Your task to perform on an android device: Add "dell xps" to the cart on costco.com, then select checkout. Image 0: 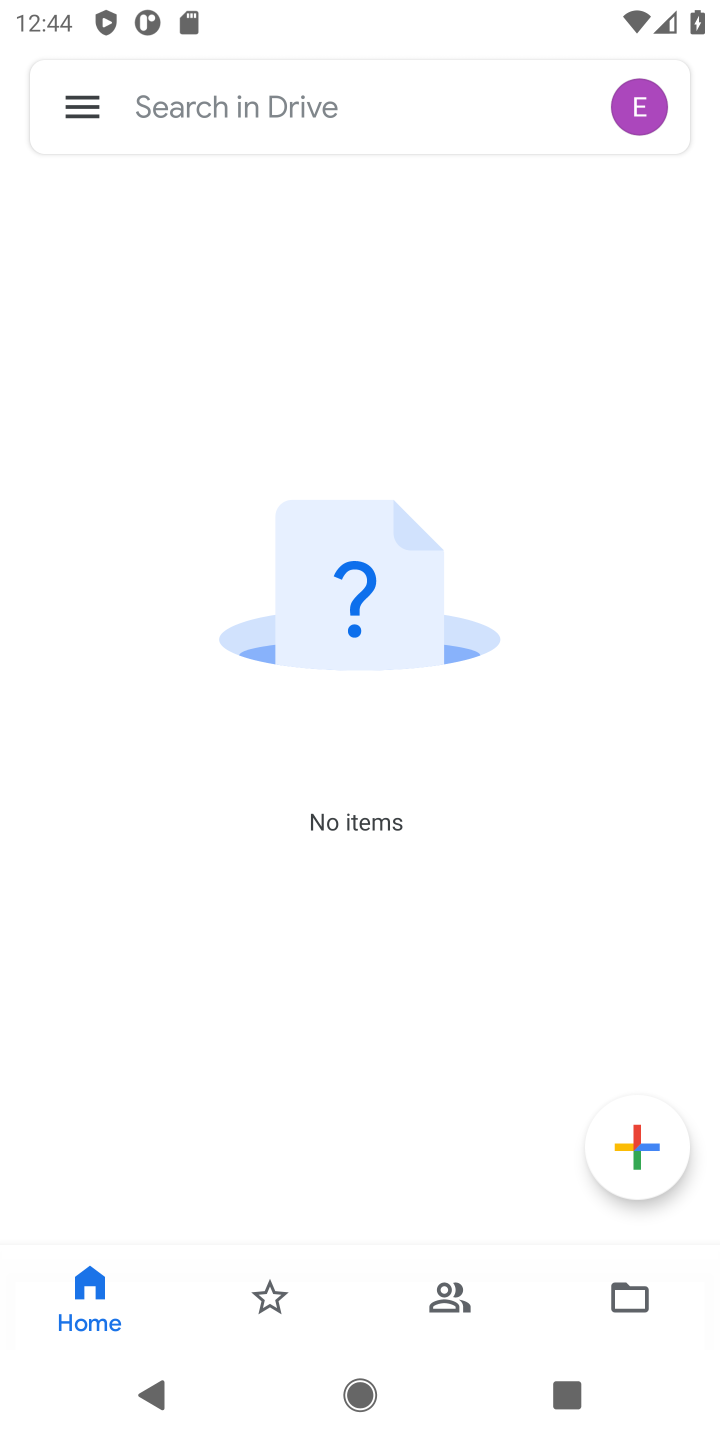
Step 0: press home button
Your task to perform on an android device: Add "dell xps" to the cart on costco.com, then select checkout. Image 1: 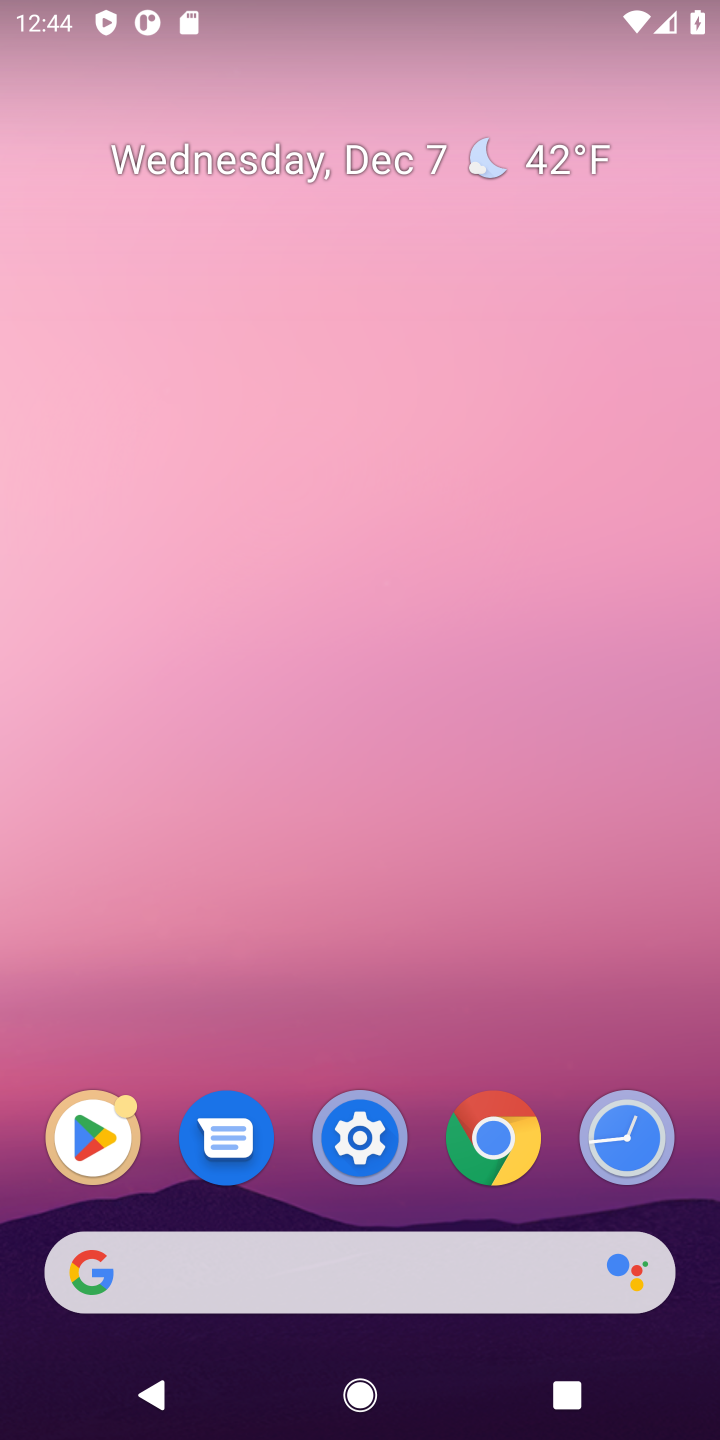
Step 1: click (213, 1263)
Your task to perform on an android device: Add "dell xps" to the cart on costco.com, then select checkout. Image 2: 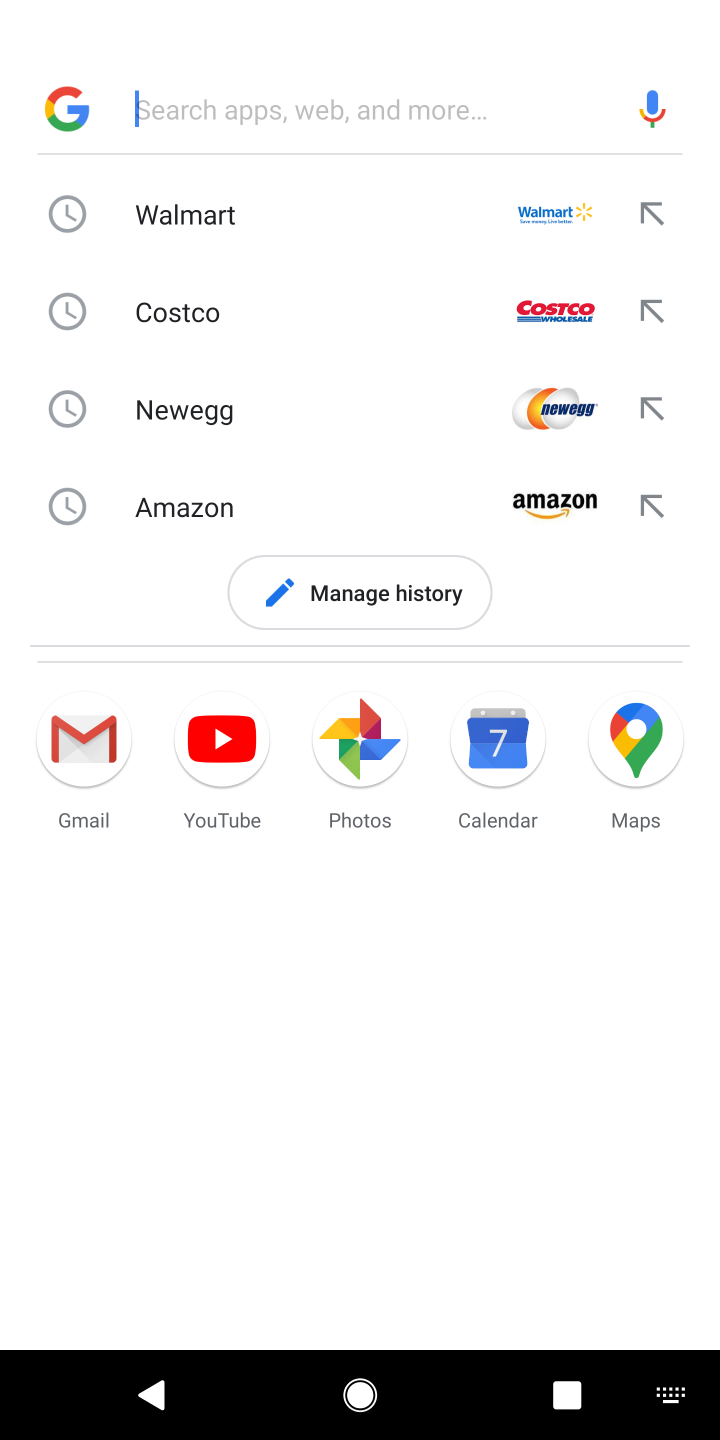
Step 2: type "costco"
Your task to perform on an android device: Add "dell xps" to the cart on costco.com, then select checkout. Image 3: 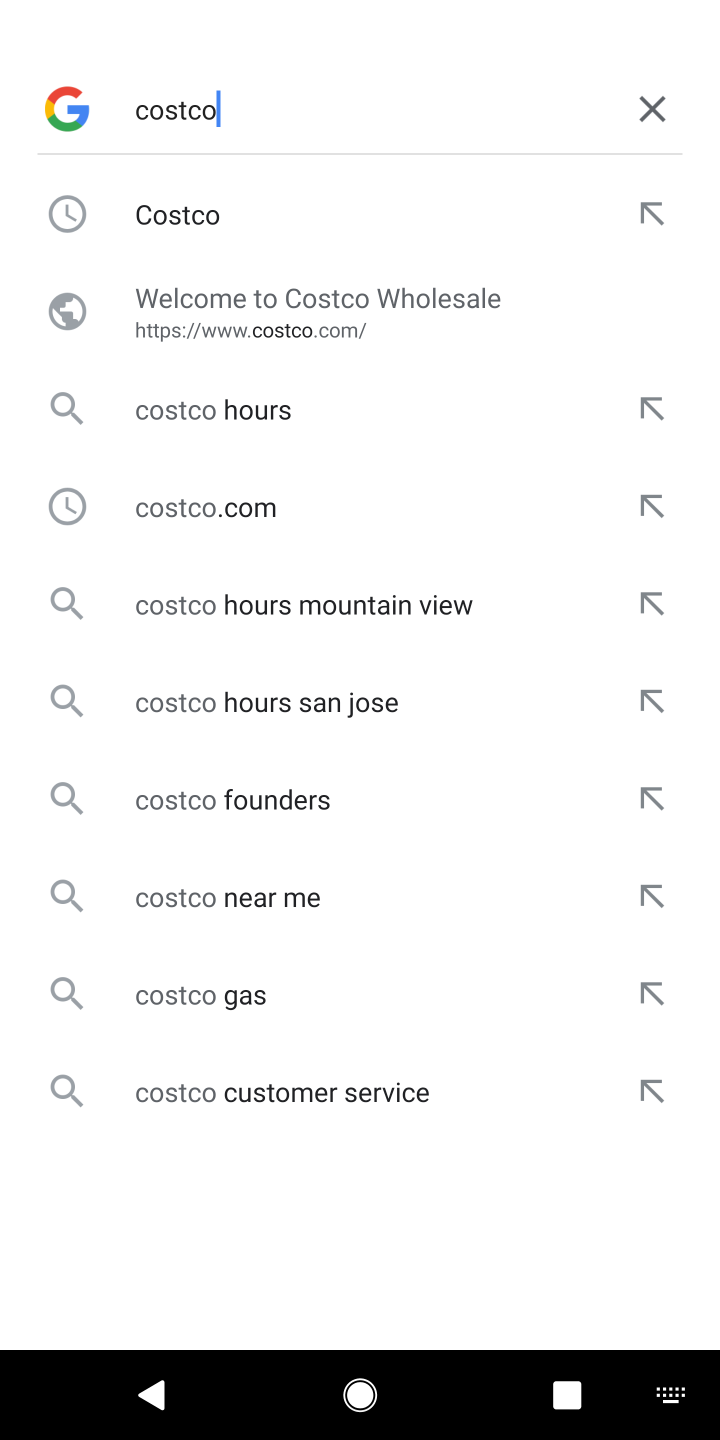
Step 3: click (287, 348)
Your task to perform on an android device: Add "dell xps" to the cart on costco.com, then select checkout. Image 4: 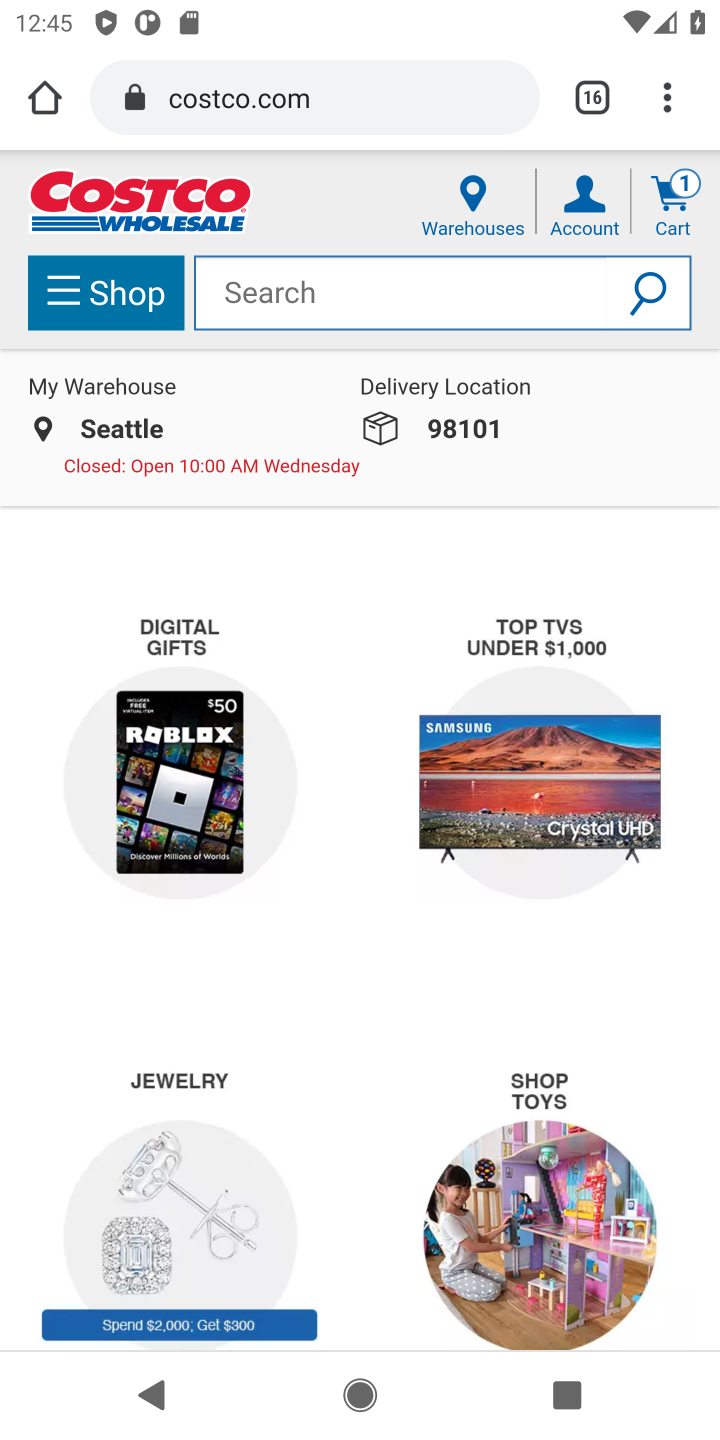
Step 4: click (307, 324)
Your task to perform on an android device: Add "dell xps" to the cart on costco.com, then select checkout. Image 5: 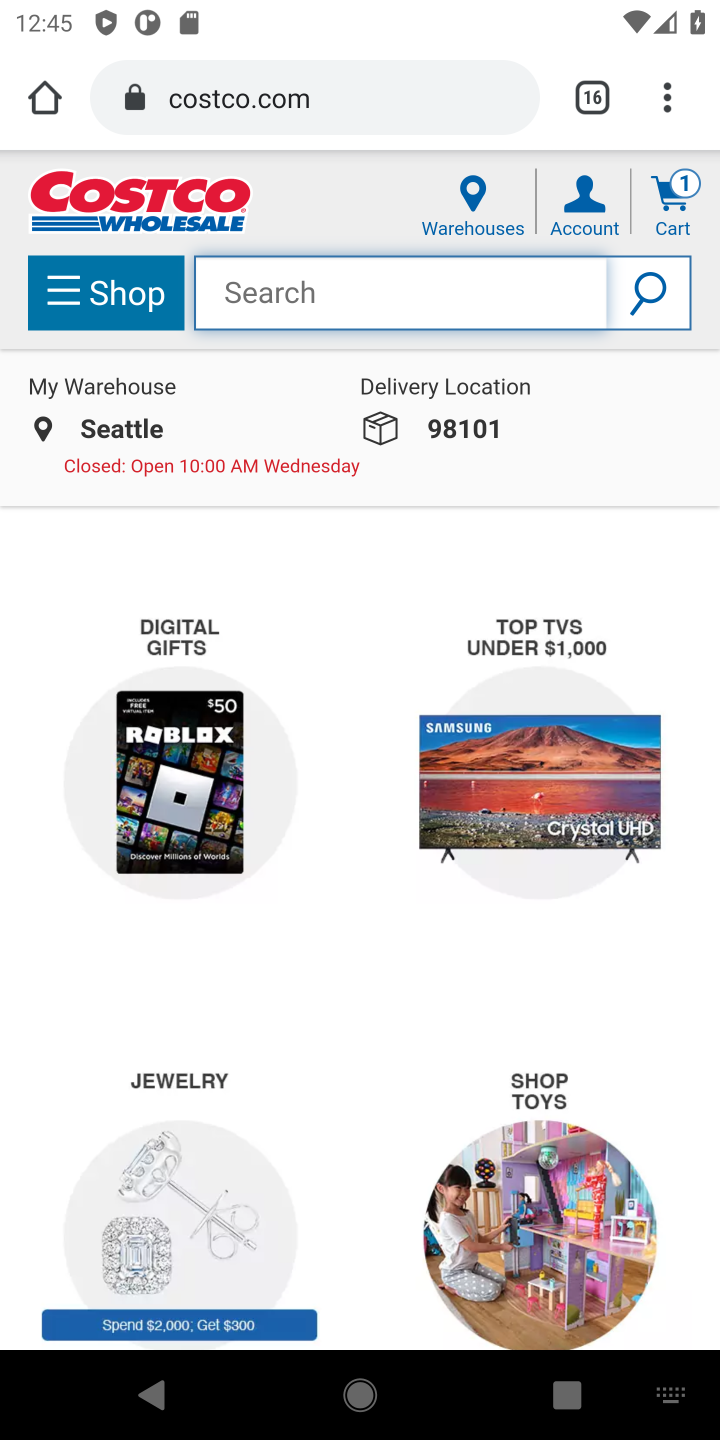
Step 5: type "dell xps"
Your task to perform on an android device: Add "dell xps" to the cart on costco.com, then select checkout. Image 6: 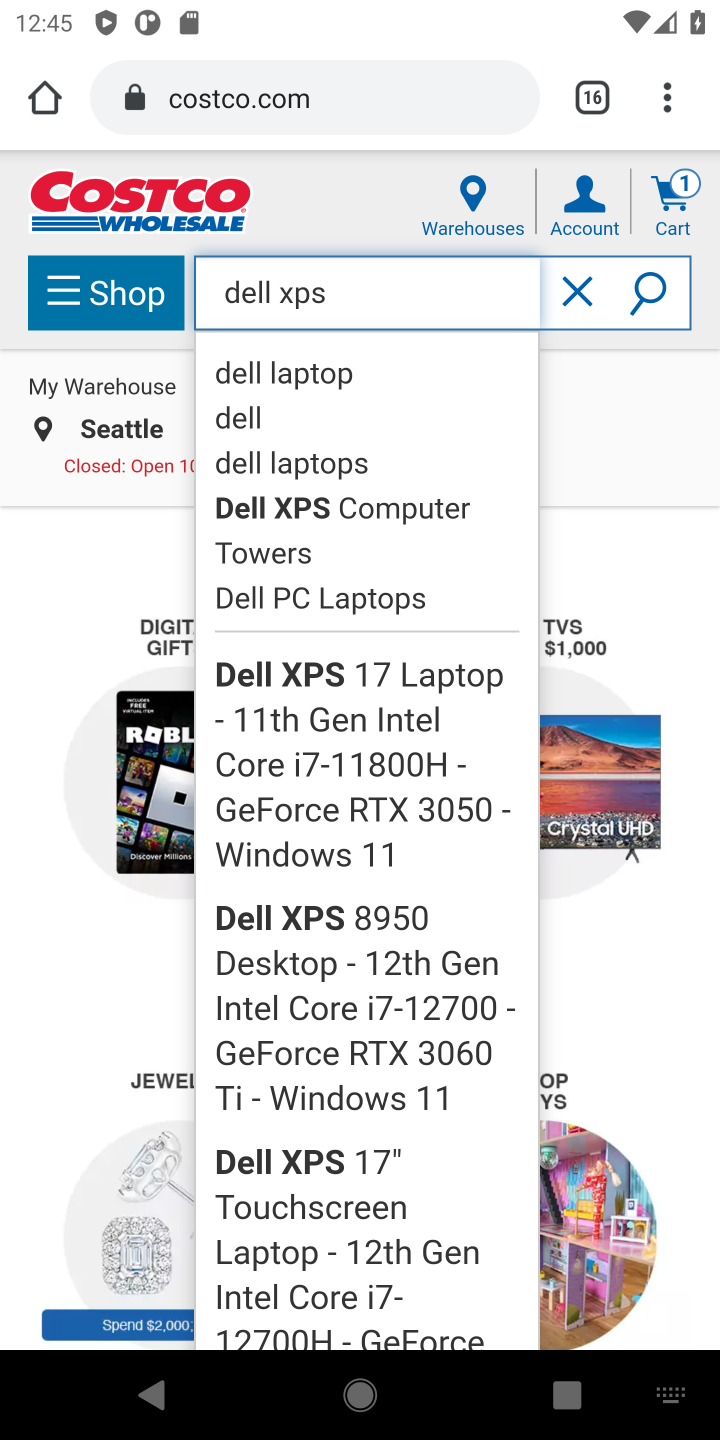
Step 6: click (636, 303)
Your task to perform on an android device: Add "dell xps" to the cart on costco.com, then select checkout. Image 7: 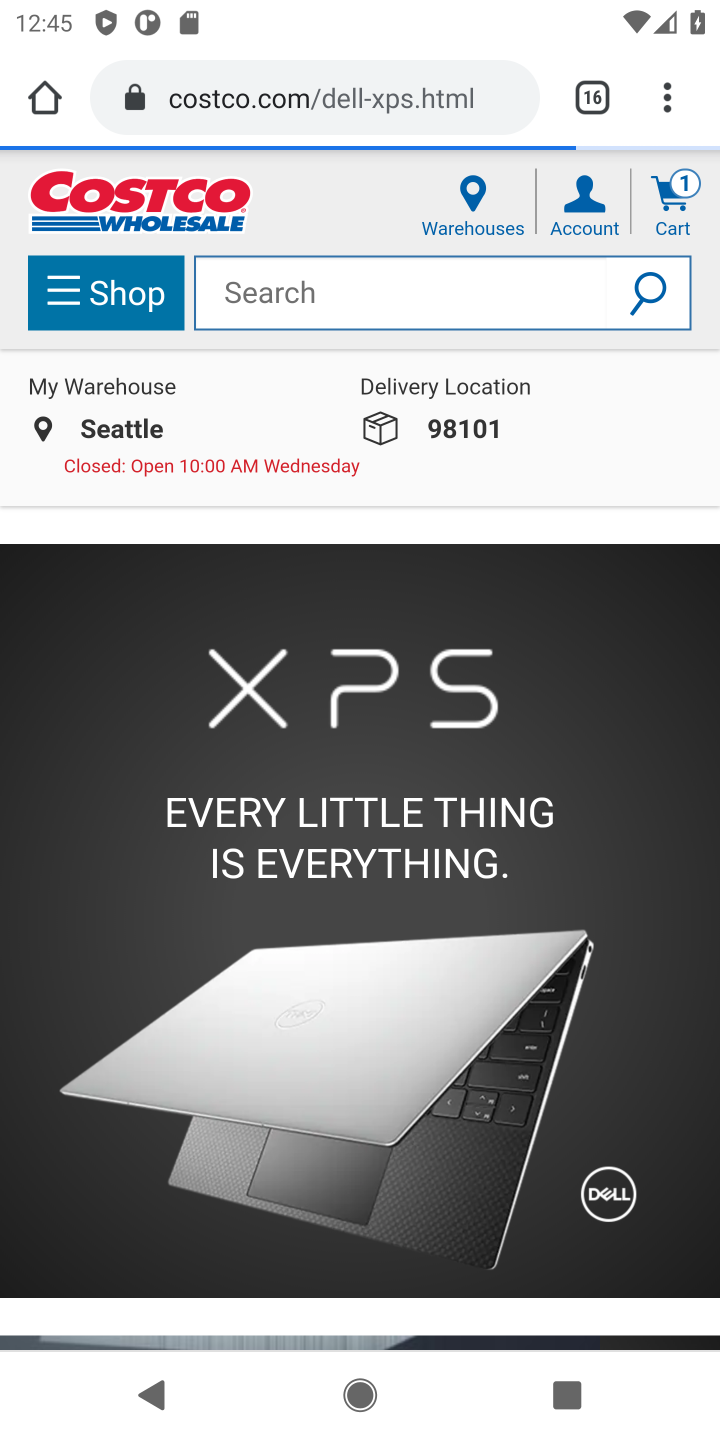
Step 7: click (387, 302)
Your task to perform on an android device: Add "dell xps" to the cart on costco.com, then select checkout. Image 8: 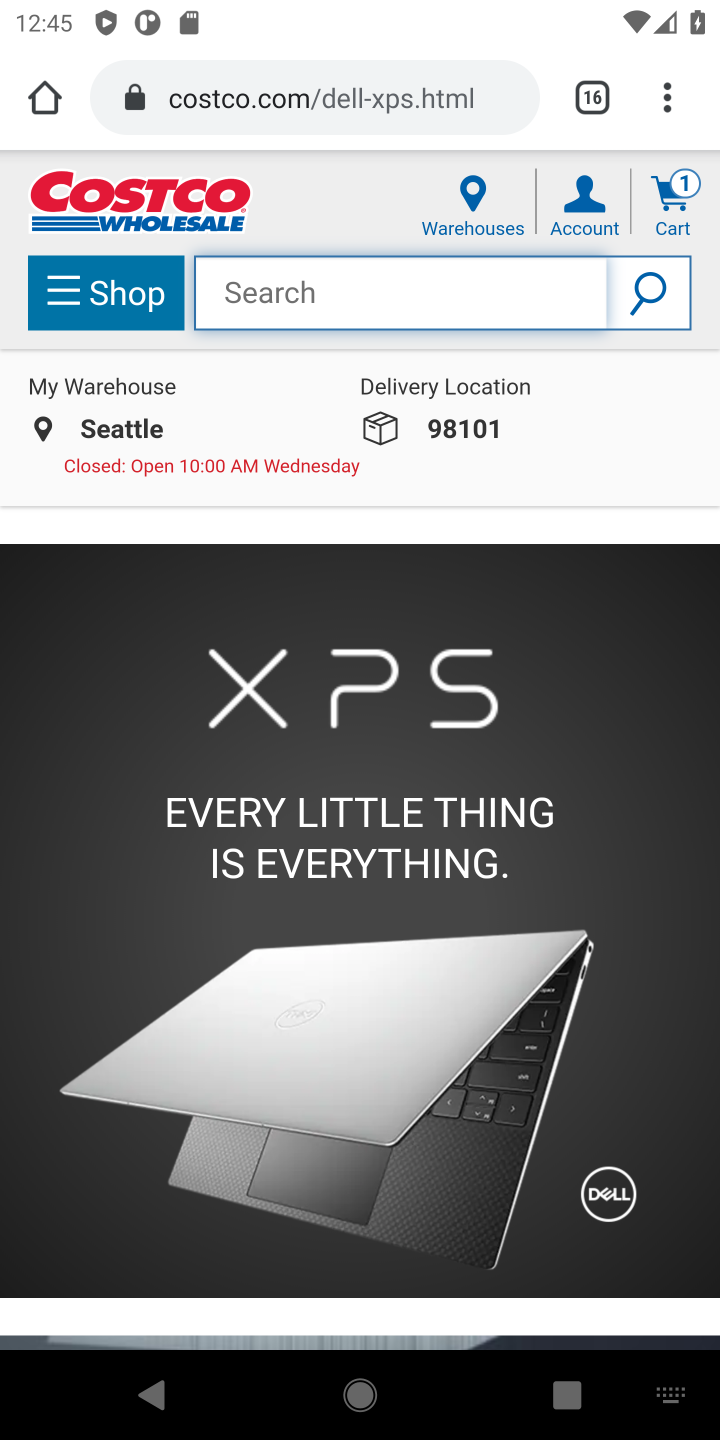
Step 8: task complete